Your task to perform on an android device: star an email in the gmail app Image 0: 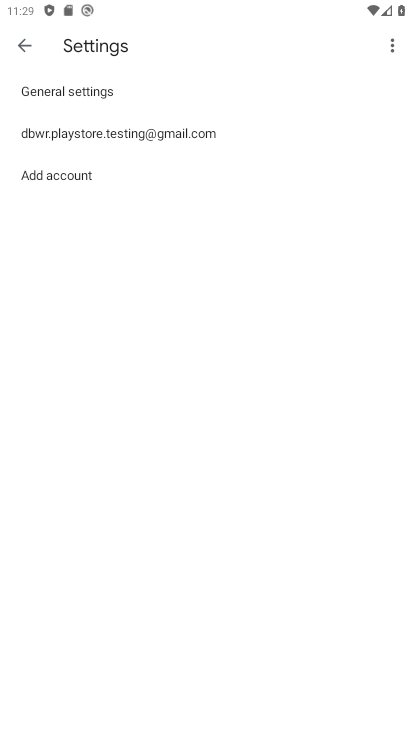
Step 0: press home button
Your task to perform on an android device: star an email in the gmail app Image 1: 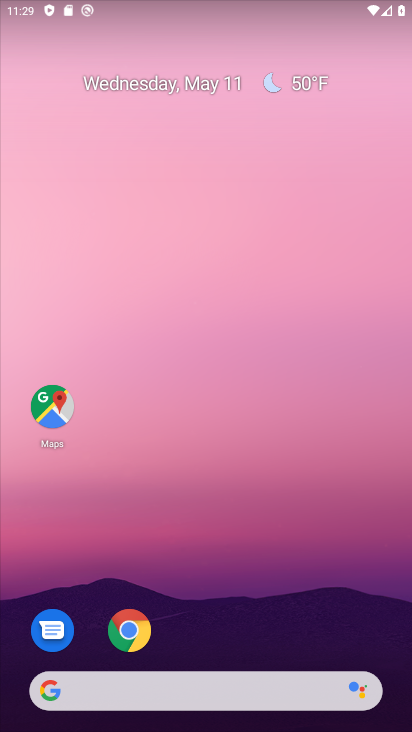
Step 1: drag from (189, 729) to (164, 150)
Your task to perform on an android device: star an email in the gmail app Image 2: 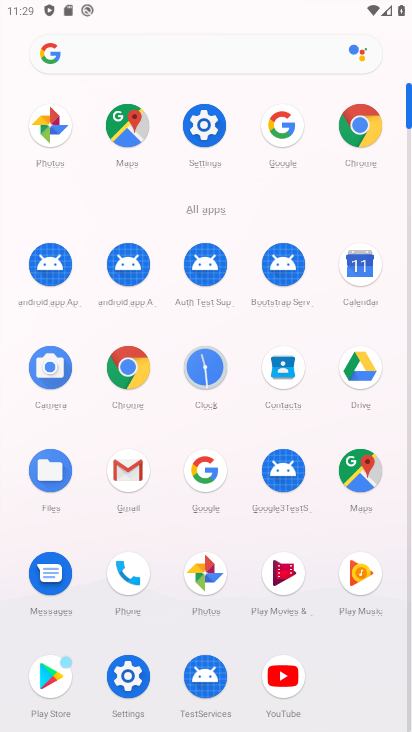
Step 2: click (128, 467)
Your task to perform on an android device: star an email in the gmail app Image 3: 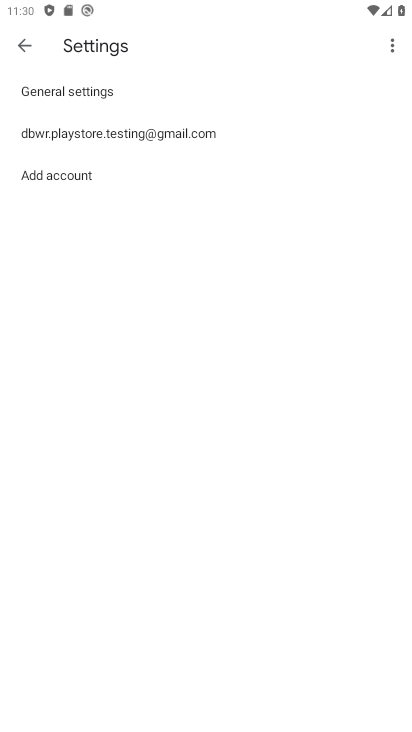
Step 3: click (23, 43)
Your task to perform on an android device: star an email in the gmail app Image 4: 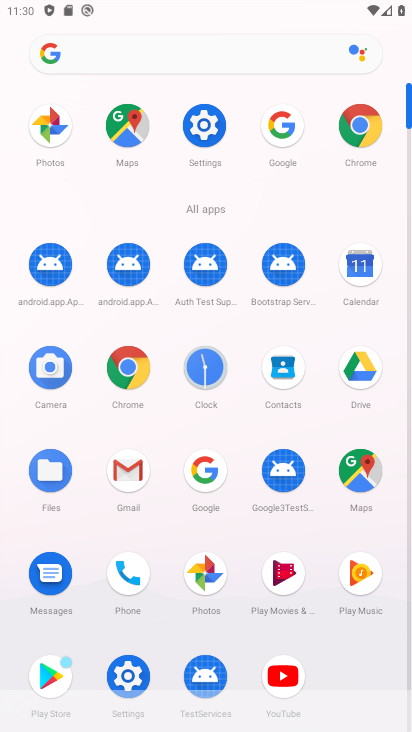
Step 4: click (125, 470)
Your task to perform on an android device: star an email in the gmail app Image 5: 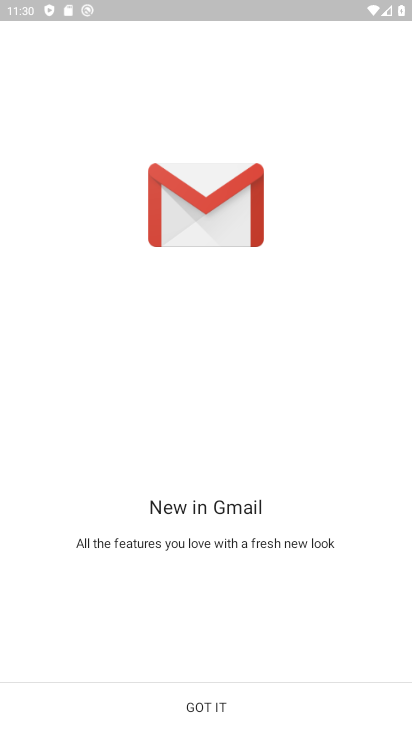
Step 5: click (215, 701)
Your task to perform on an android device: star an email in the gmail app Image 6: 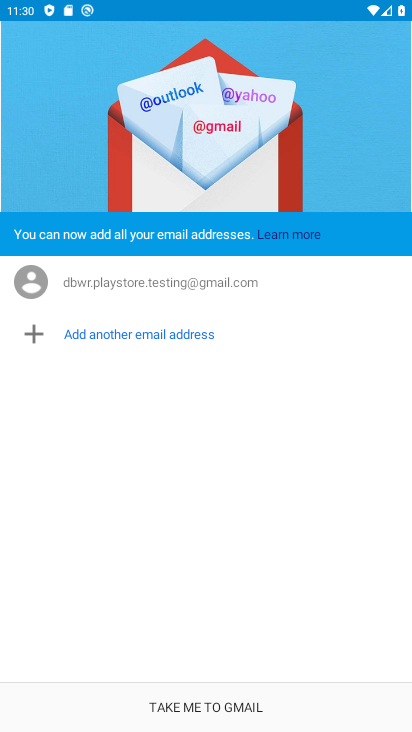
Step 6: click (214, 701)
Your task to perform on an android device: star an email in the gmail app Image 7: 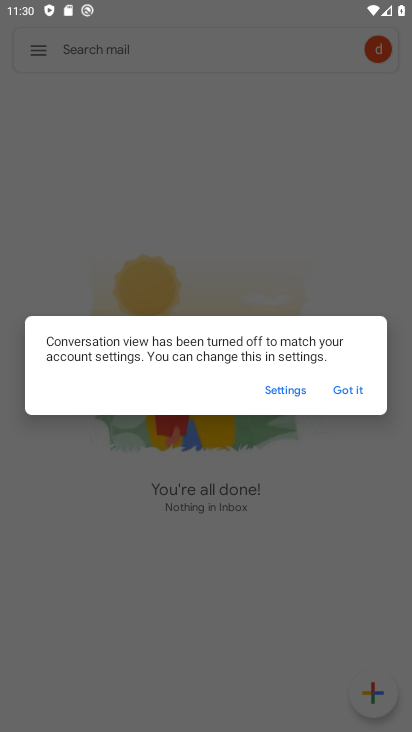
Step 7: click (351, 390)
Your task to perform on an android device: star an email in the gmail app Image 8: 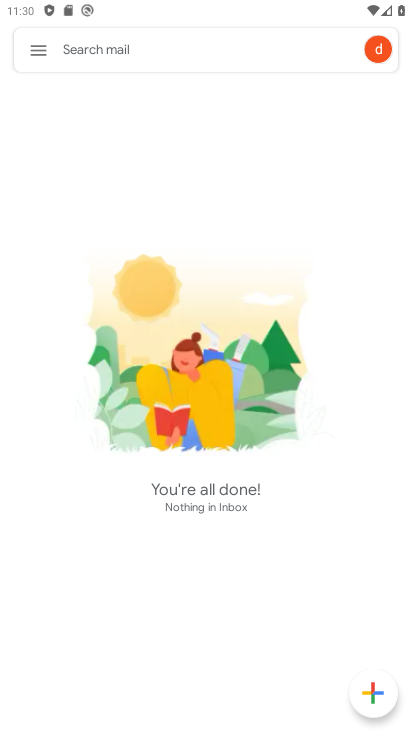
Step 8: task complete